Your task to perform on an android device: Open eBay Image 0: 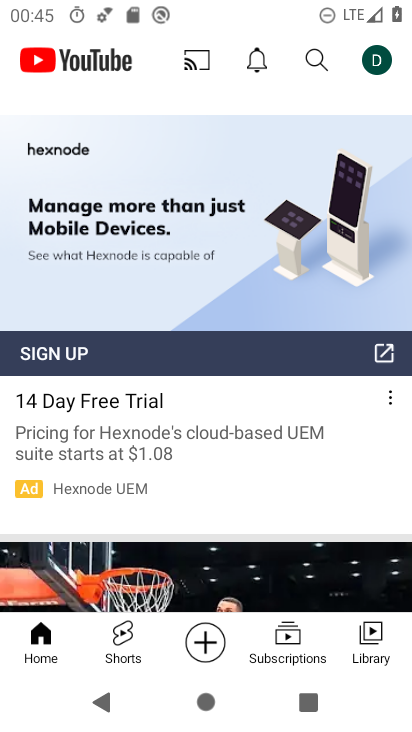
Step 0: press home button
Your task to perform on an android device: Open eBay Image 1: 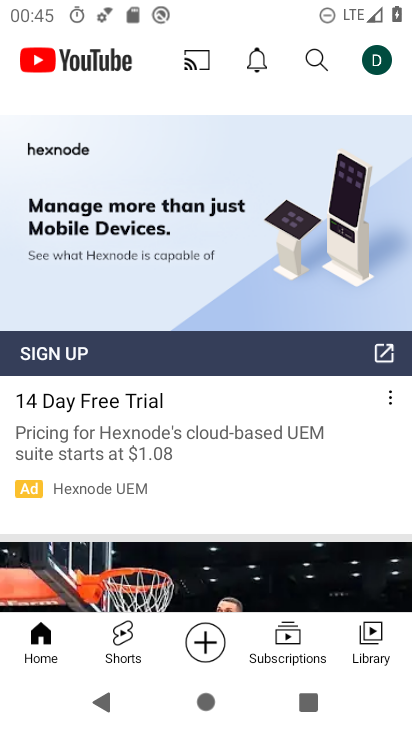
Step 1: drag from (255, 554) to (276, 22)
Your task to perform on an android device: Open eBay Image 2: 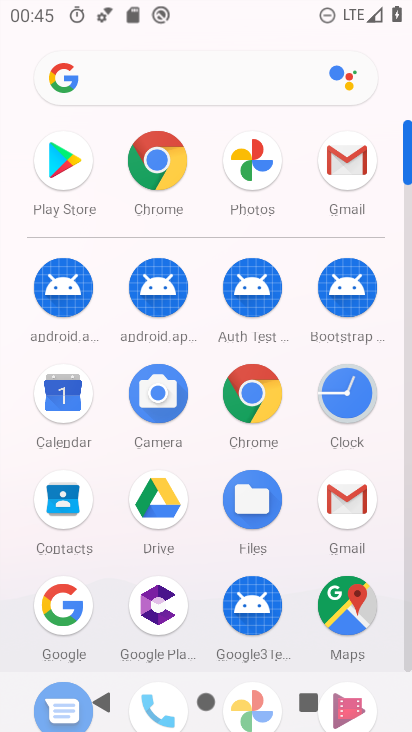
Step 2: click (119, 71)
Your task to perform on an android device: Open eBay Image 3: 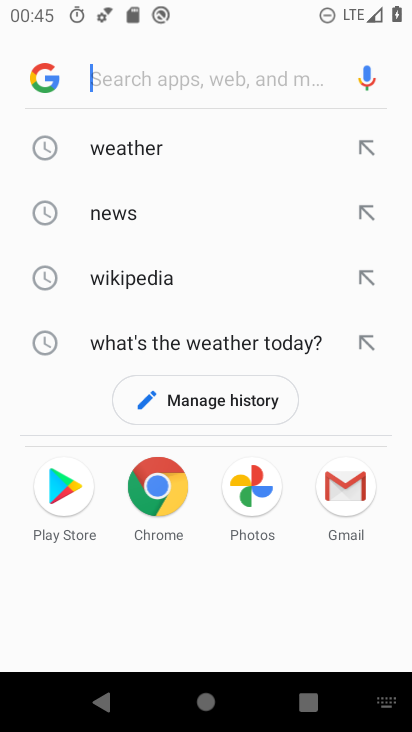
Step 3: type "eBay"
Your task to perform on an android device: Open eBay Image 4: 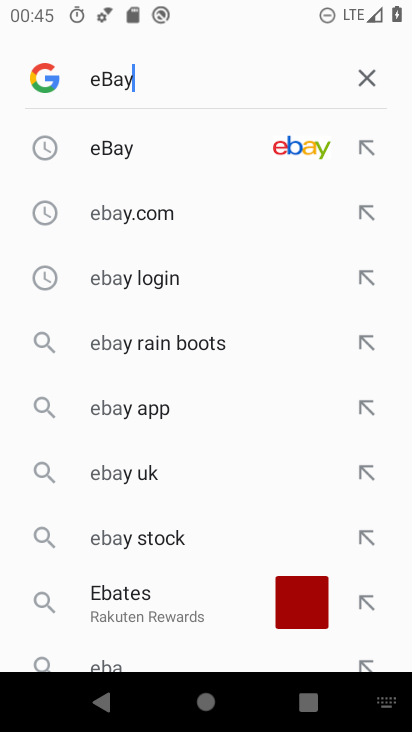
Step 4: type ""
Your task to perform on an android device: Open eBay Image 5: 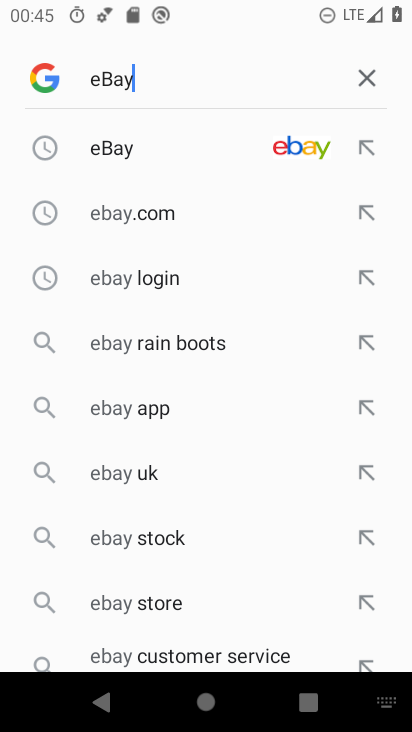
Step 5: click (153, 170)
Your task to perform on an android device: Open eBay Image 6: 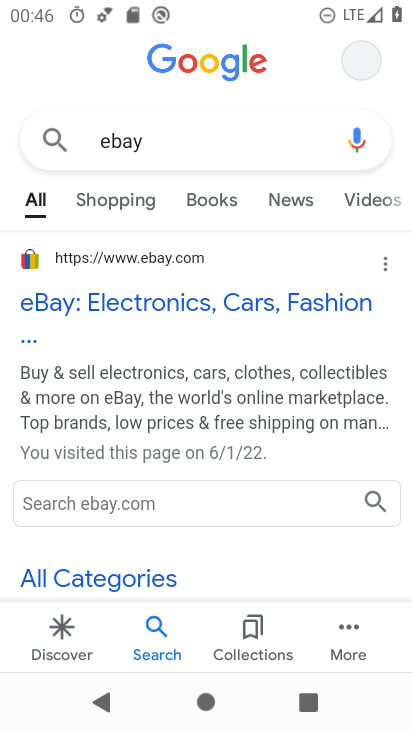
Step 6: drag from (190, 488) to (325, 165)
Your task to perform on an android device: Open eBay Image 7: 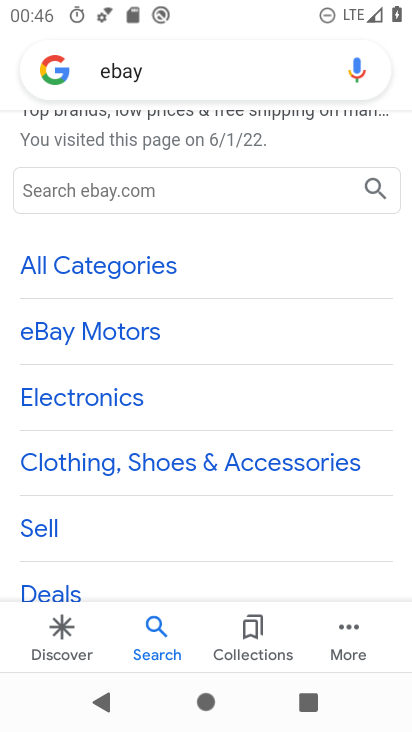
Step 7: drag from (213, 265) to (249, 726)
Your task to perform on an android device: Open eBay Image 8: 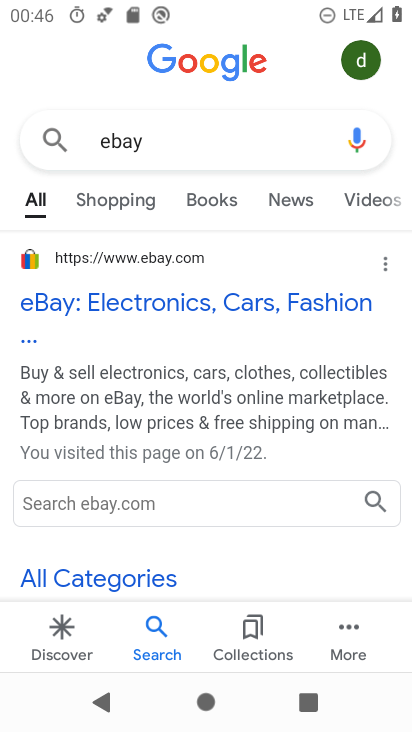
Step 8: click (117, 312)
Your task to perform on an android device: Open eBay Image 9: 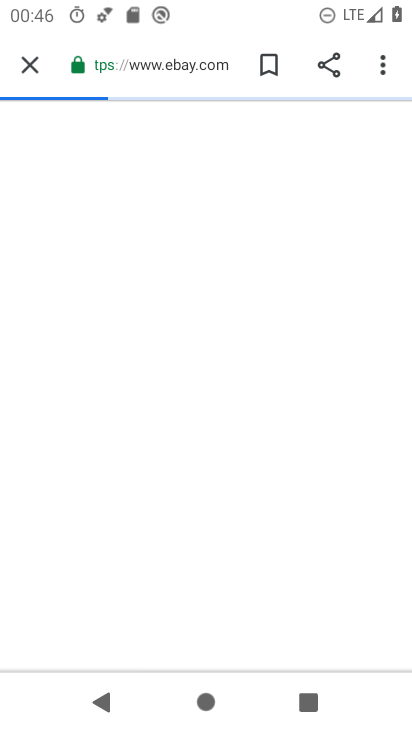
Step 9: task complete